Your task to perform on an android device: Check the weather Image 0: 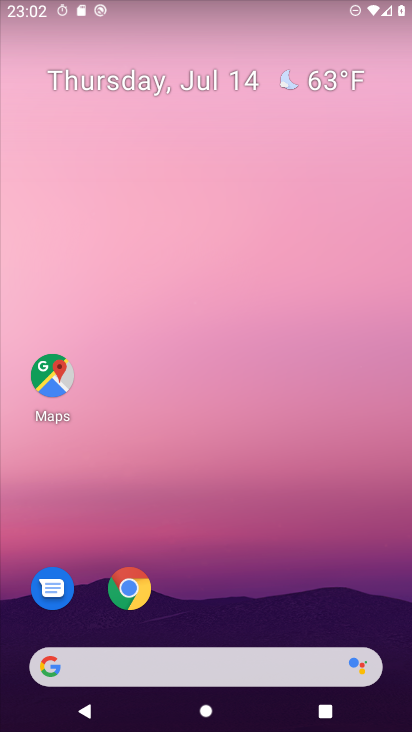
Step 0: click (247, 662)
Your task to perform on an android device: Check the weather Image 1: 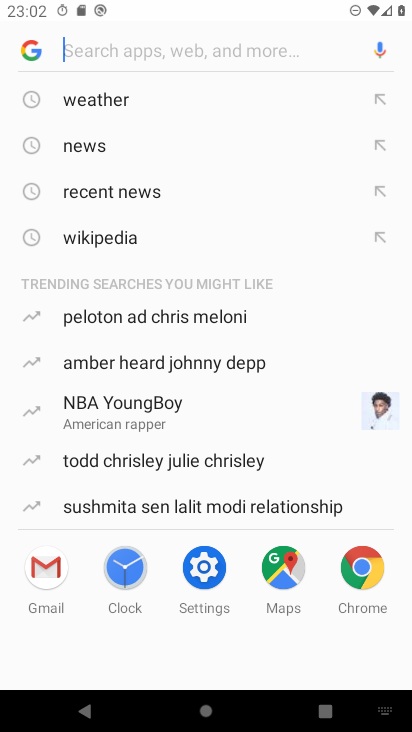
Step 1: click (113, 98)
Your task to perform on an android device: Check the weather Image 2: 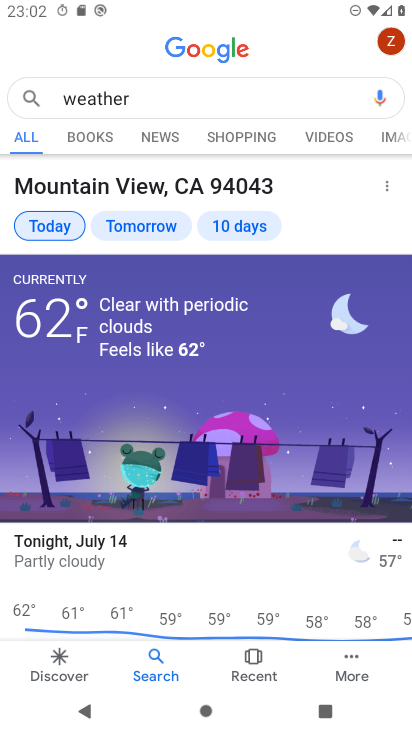
Step 2: task complete